Your task to perform on an android device: check data usage Image 0: 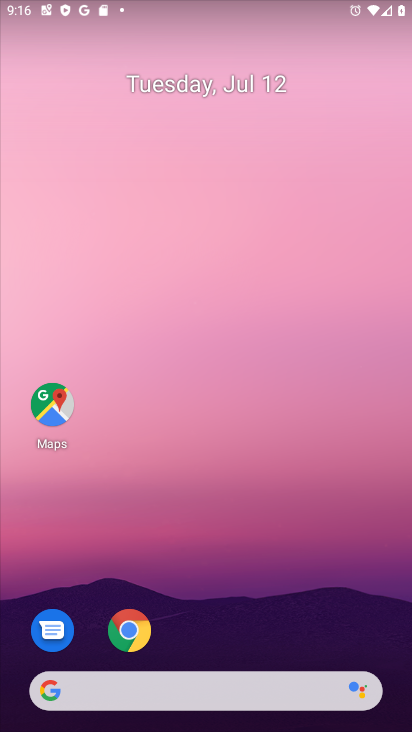
Step 0: drag from (221, 645) to (242, 75)
Your task to perform on an android device: check data usage Image 1: 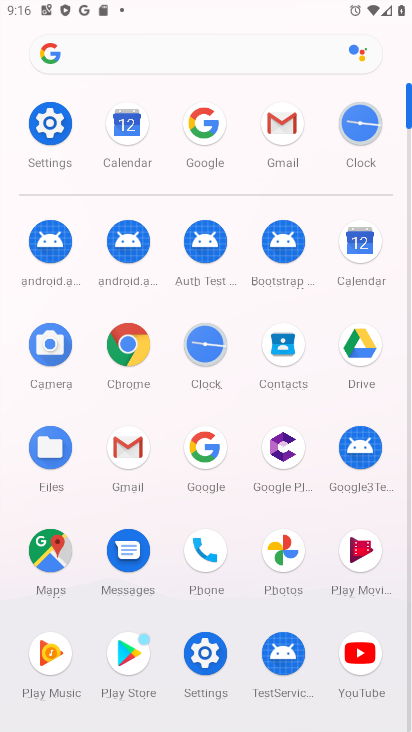
Step 1: click (53, 125)
Your task to perform on an android device: check data usage Image 2: 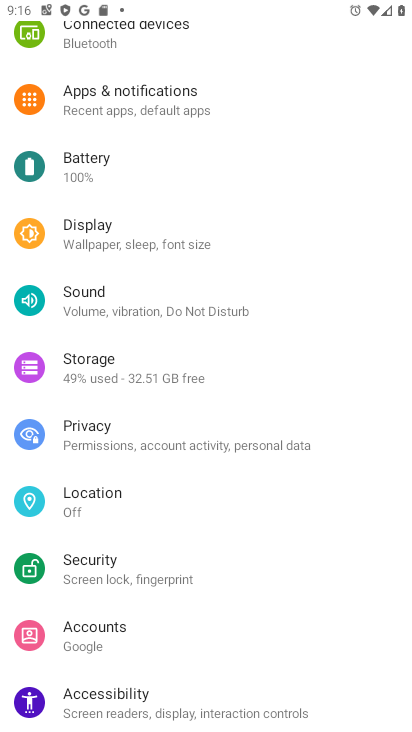
Step 2: drag from (230, 598) to (252, 429)
Your task to perform on an android device: check data usage Image 3: 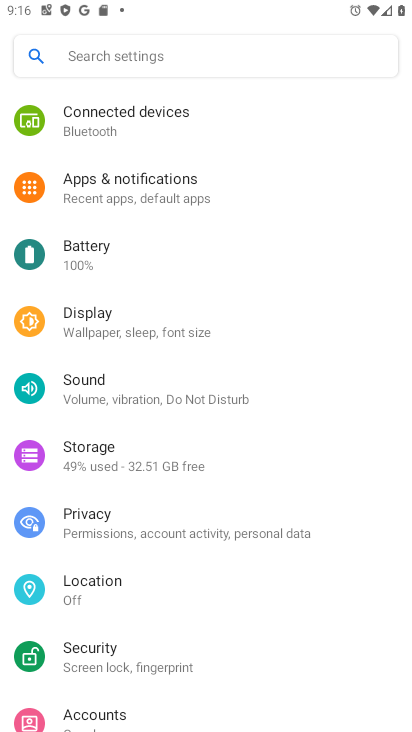
Step 3: click (104, 462)
Your task to perform on an android device: check data usage Image 4: 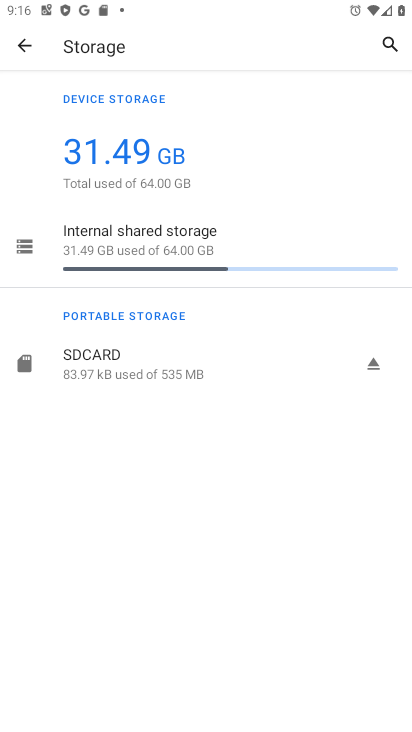
Step 4: task complete